Your task to perform on an android device: change your default location settings in chrome Image 0: 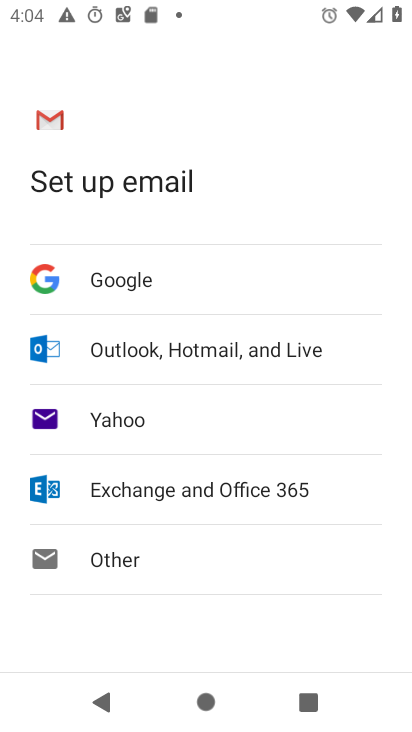
Step 0: press home button
Your task to perform on an android device: change your default location settings in chrome Image 1: 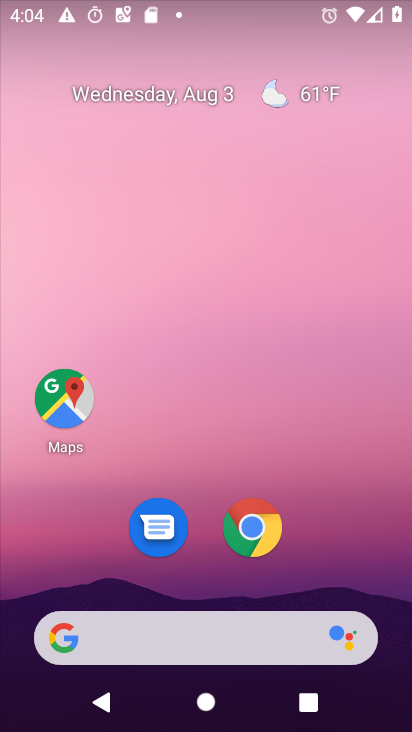
Step 1: drag from (330, 580) to (300, 51)
Your task to perform on an android device: change your default location settings in chrome Image 2: 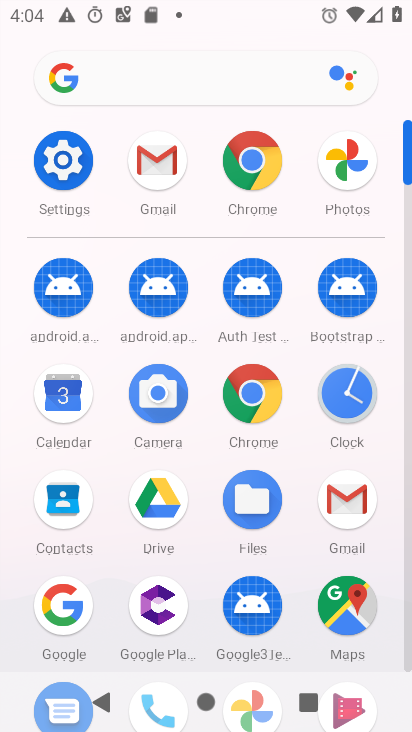
Step 2: click (260, 402)
Your task to perform on an android device: change your default location settings in chrome Image 3: 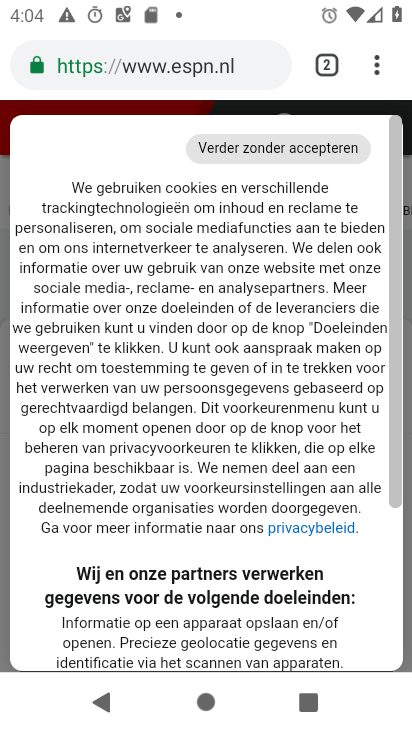
Step 3: drag from (380, 60) to (204, 577)
Your task to perform on an android device: change your default location settings in chrome Image 4: 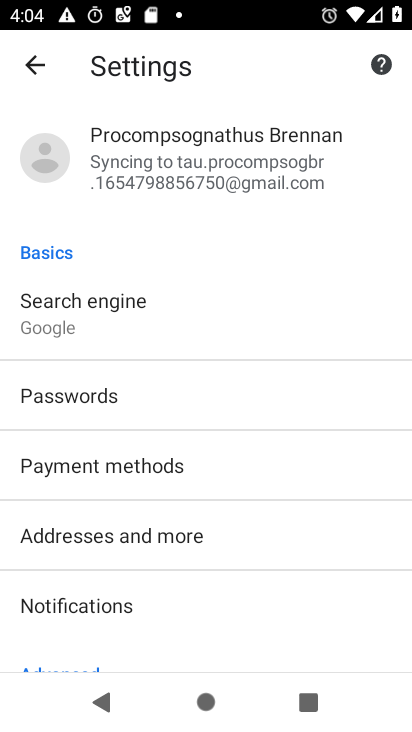
Step 4: drag from (246, 531) to (299, 65)
Your task to perform on an android device: change your default location settings in chrome Image 5: 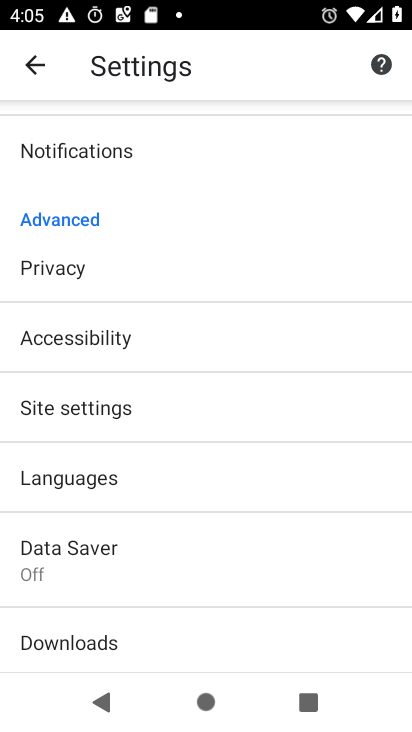
Step 5: click (93, 415)
Your task to perform on an android device: change your default location settings in chrome Image 6: 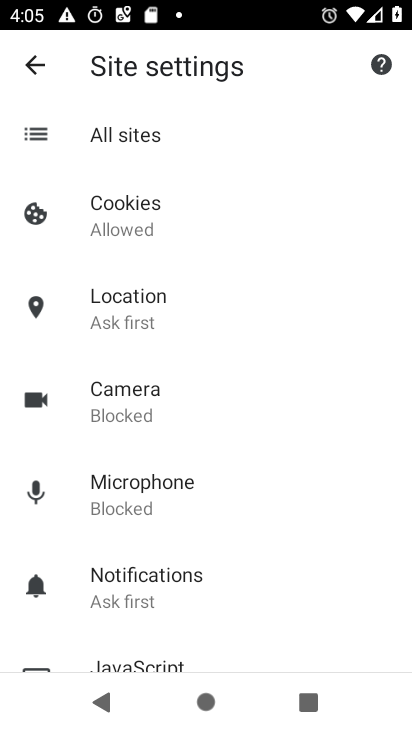
Step 6: click (141, 330)
Your task to perform on an android device: change your default location settings in chrome Image 7: 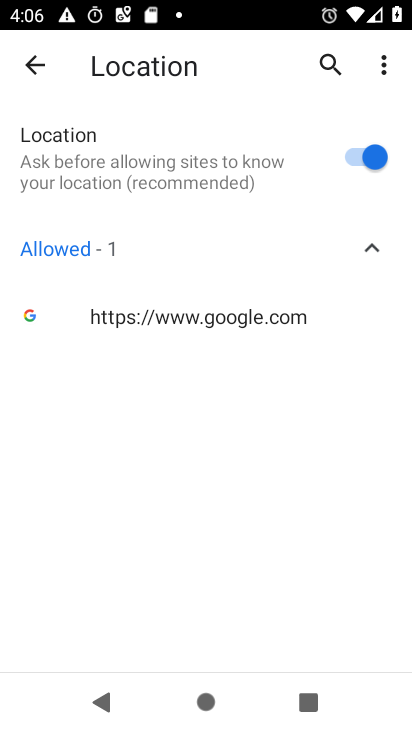
Step 7: click (357, 156)
Your task to perform on an android device: change your default location settings in chrome Image 8: 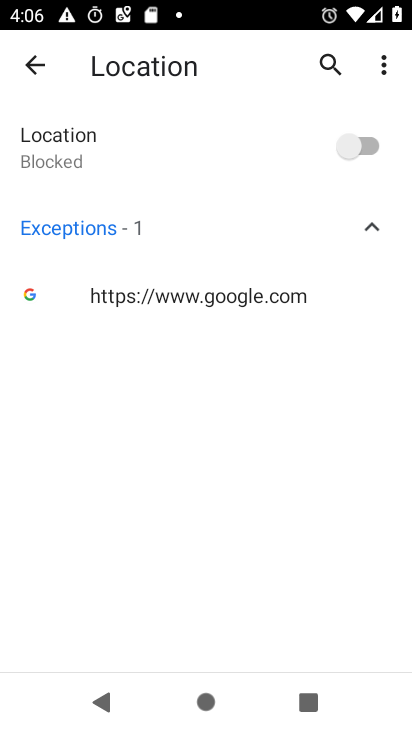
Step 8: task complete